Your task to perform on an android device: Where can I buy a nice beach chair? Image 0: 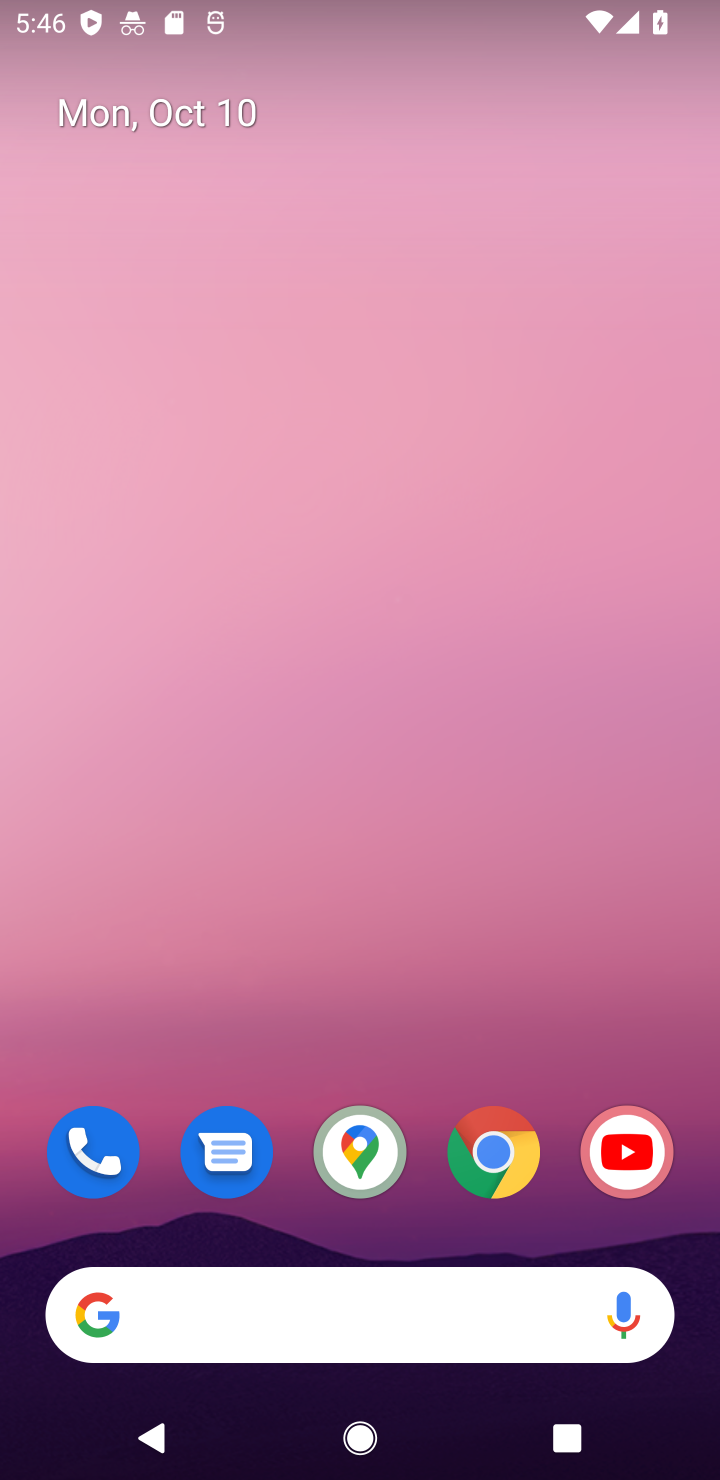
Step 0: click (496, 1155)
Your task to perform on an android device: Where can I buy a nice beach chair? Image 1: 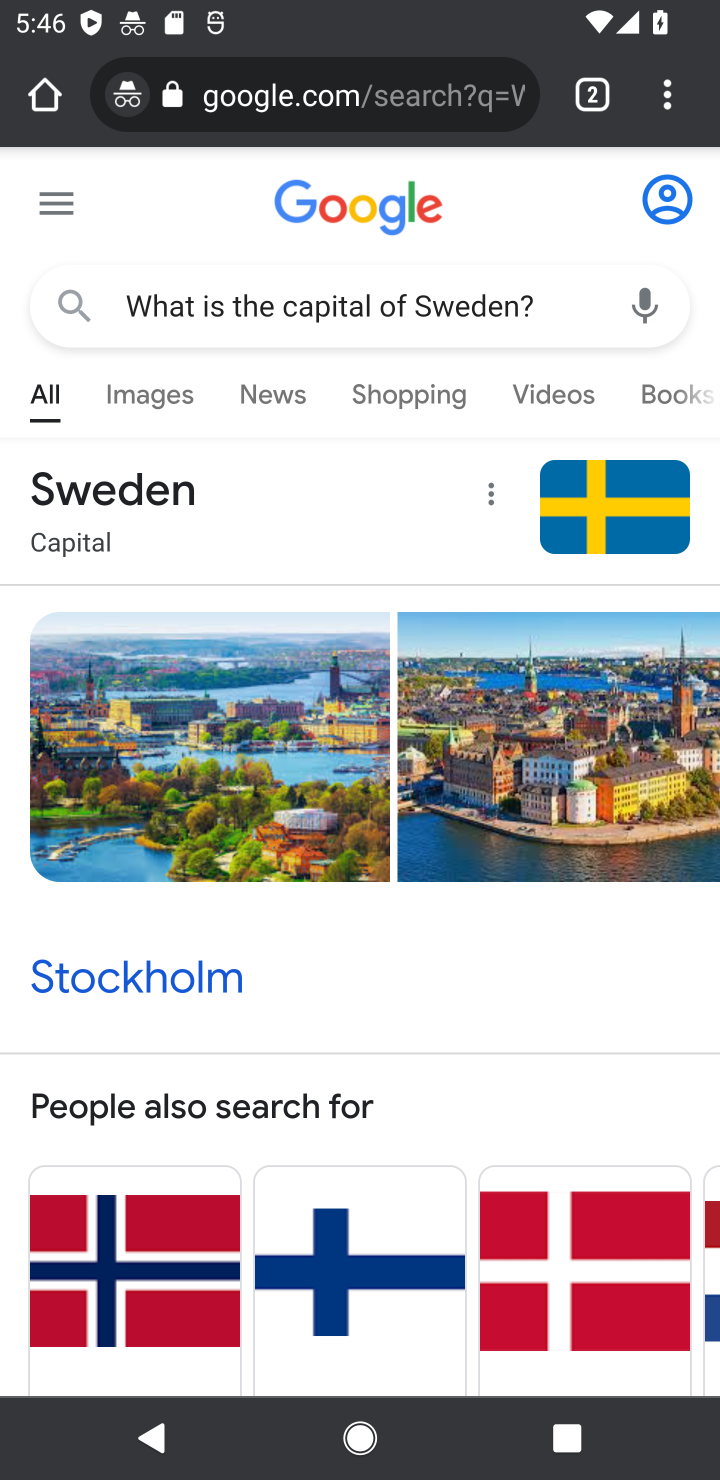
Step 1: click (424, 109)
Your task to perform on an android device: Where can I buy a nice beach chair? Image 2: 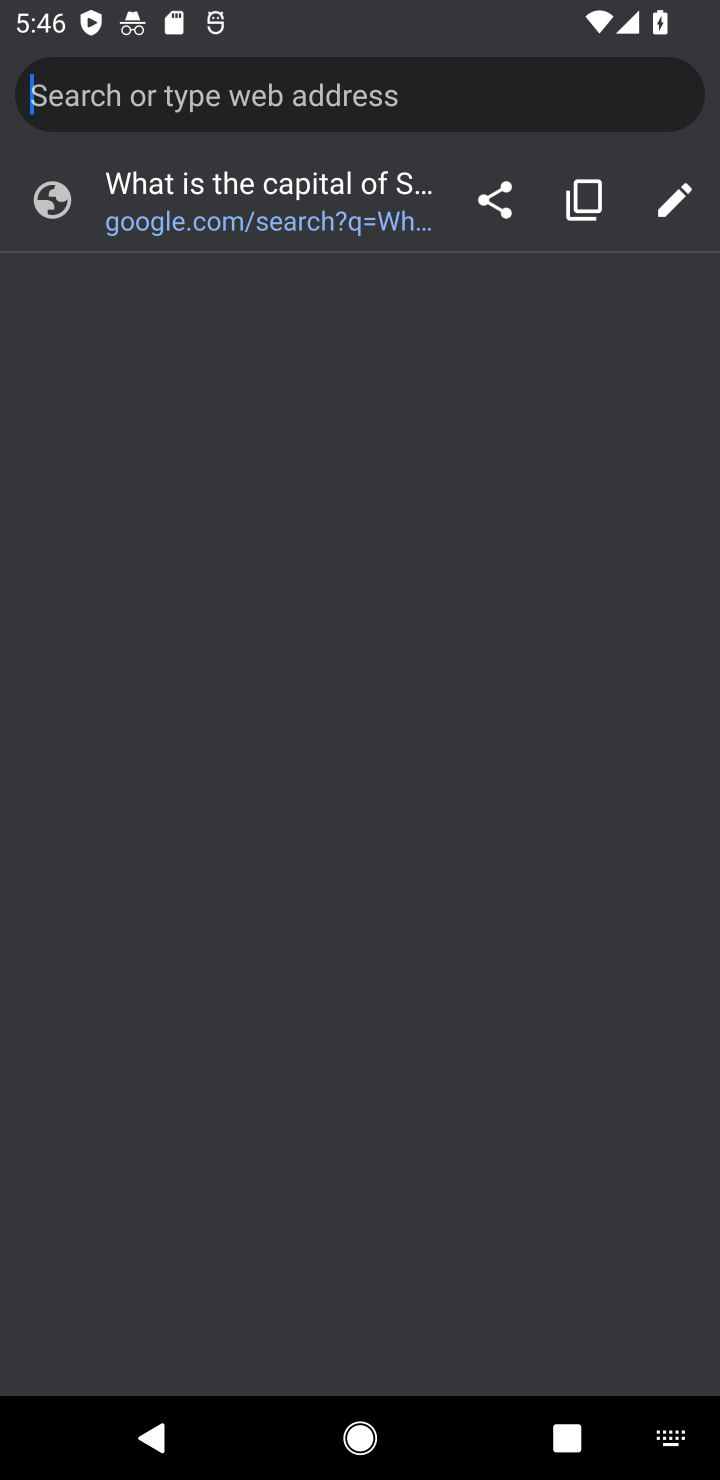
Step 2: type "Where can I buy a nice beach chair?"
Your task to perform on an android device: Where can I buy a nice beach chair? Image 3: 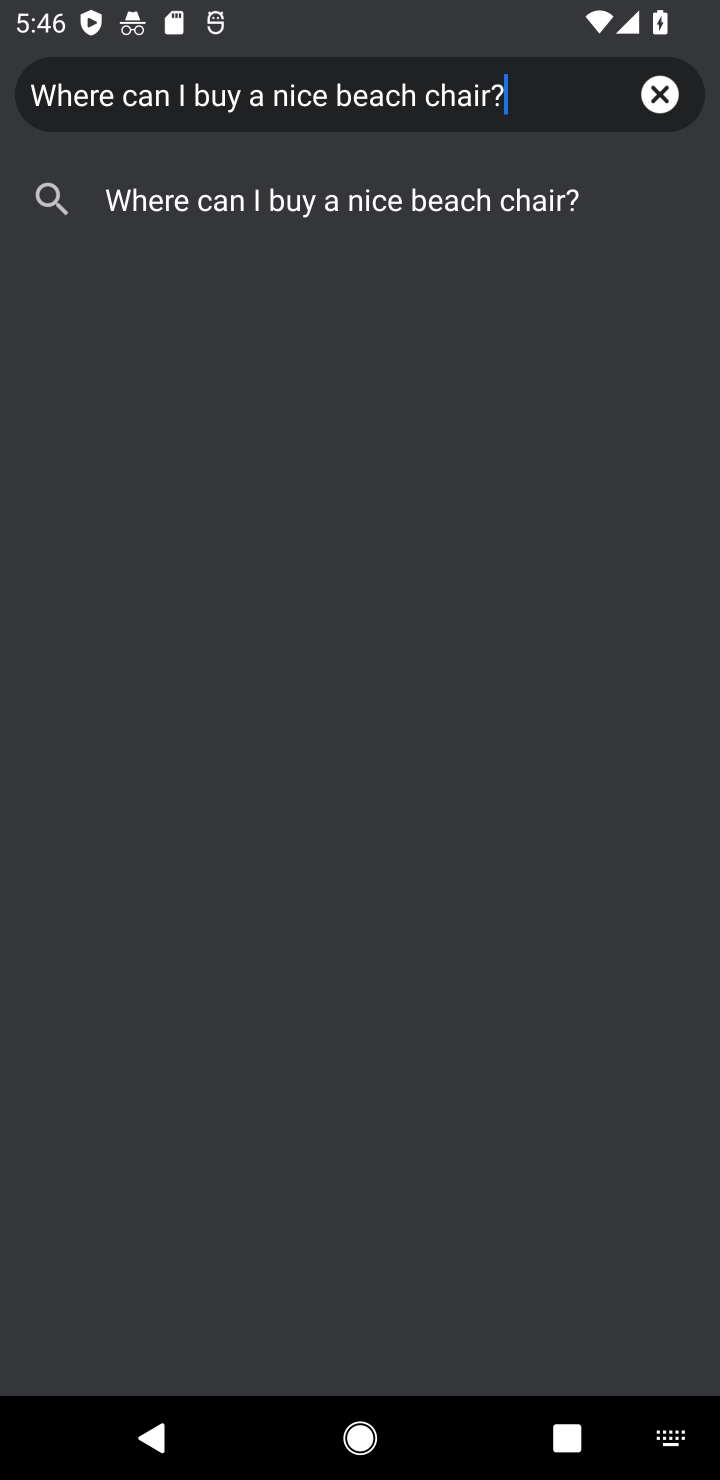
Step 3: click (513, 213)
Your task to perform on an android device: Where can I buy a nice beach chair? Image 4: 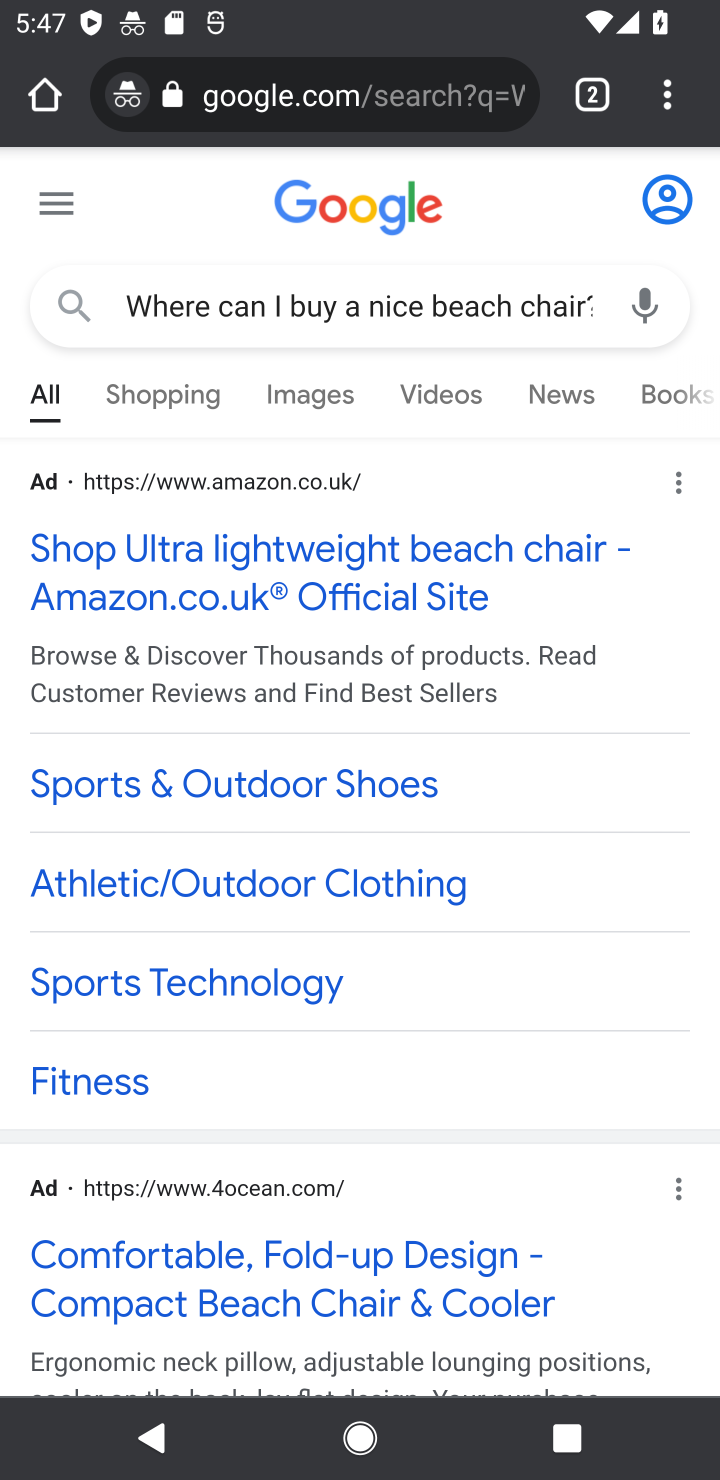
Step 4: task complete